Your task to perform on an android device: Open Android settings Image 0: 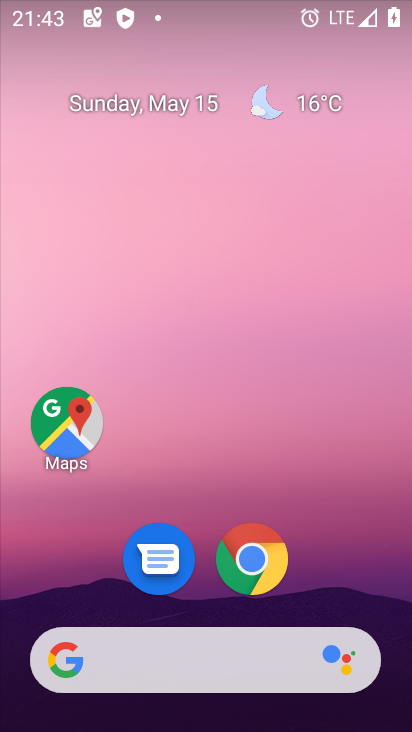
Step 0: drag from (311, 506) to (194, 122)
Your task to perform on an android device: Open Android settings Image 1: 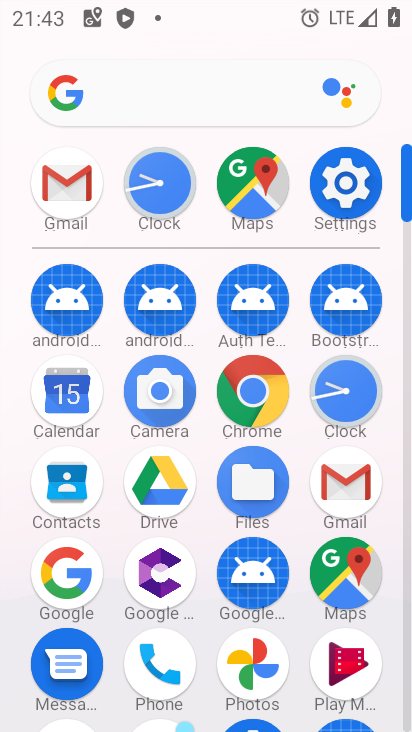
Step 1: click (343, 182)
Your task to perform on an android device: Open Android settings Image 2: 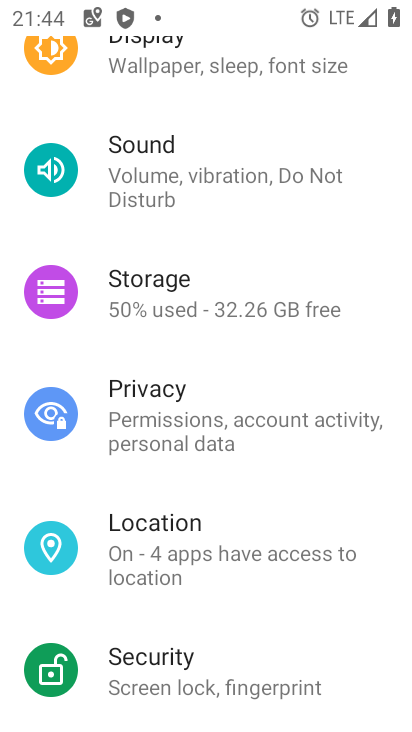
Step 2: task complete